Your task to perform on an android device: Open location settings Image 0: 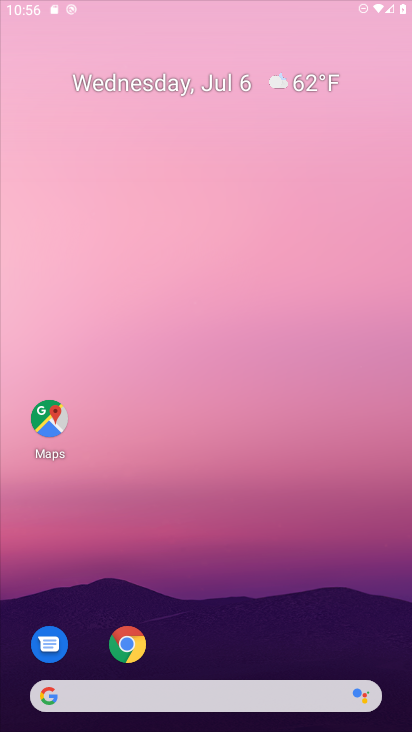
Step 0: press home button
Your task to perform on an android device: Open location settings Image 1: 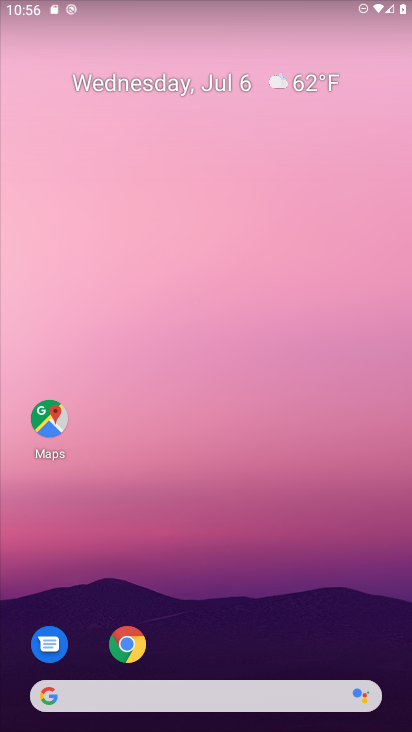
Step 1: drag from (218, 643) to (125, 98)
Your task to perform on an android device: Open location settings Image 2: 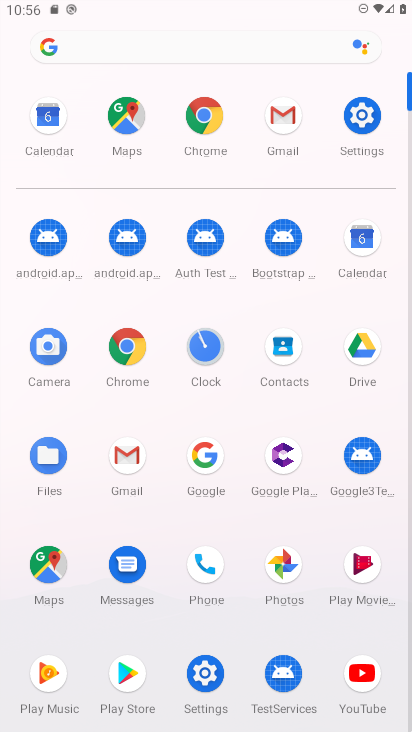
Step 2: click (359, 118)
Your task to perform on an android device: Open location settings Image 3: 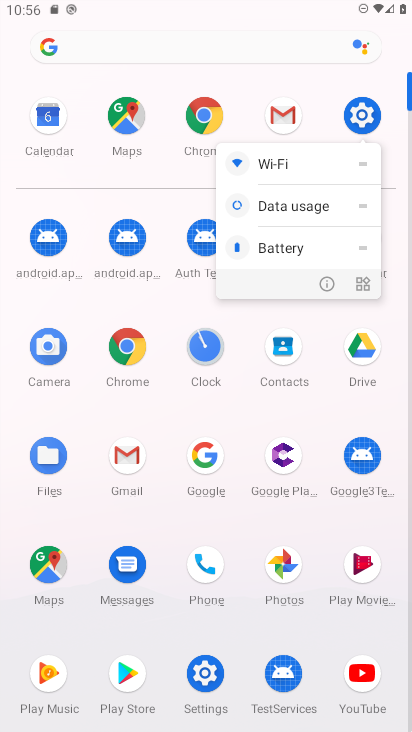
Step 3: click (359, 118)
Your task to perform on an android device: Open location settings Image 4: 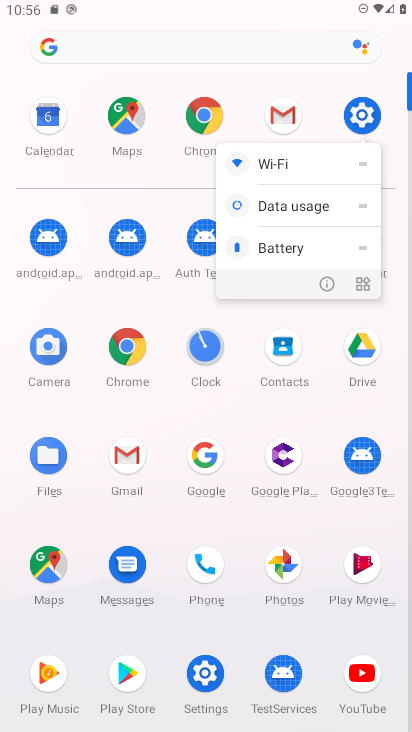
Step 4: click (359, 118)
Your task to perform on an android device: Open location settings Image 5: 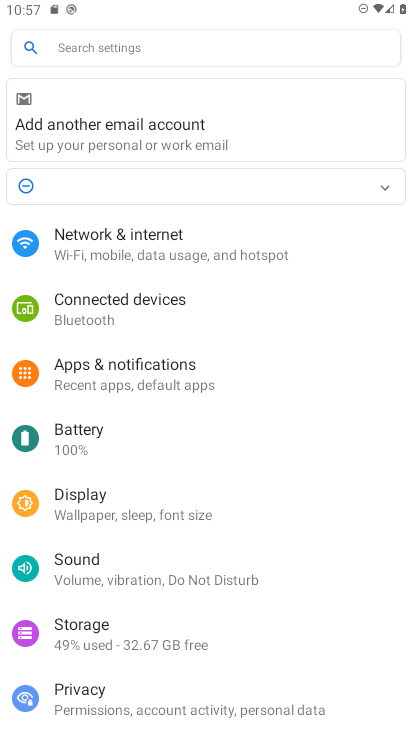
Step 5: drag from (346, 501) to (280, 177)
Your task to perform on an android device: Open location settings Image 6: 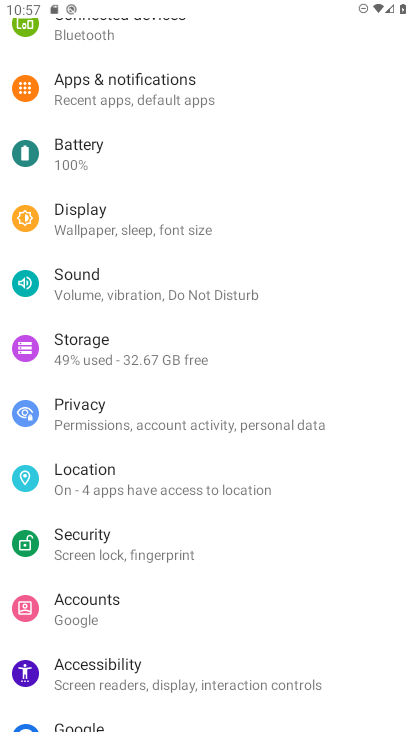
Step 6: click (78, 473)
Your task to perform on an android device: Open location settings Image 7: 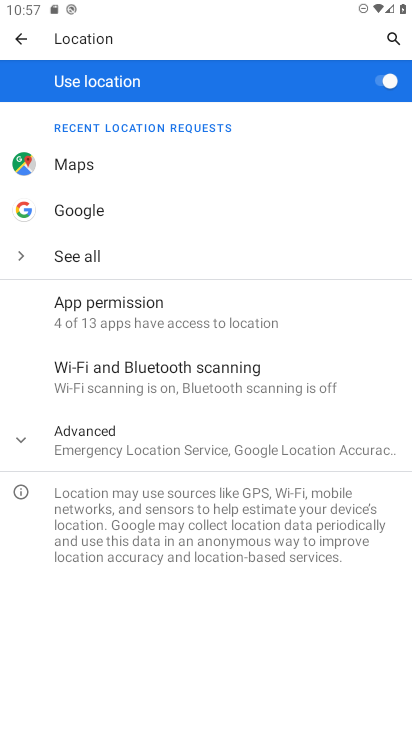
Step 7: task complete